Your task to perform on an android device: change notifications settings Image 0: 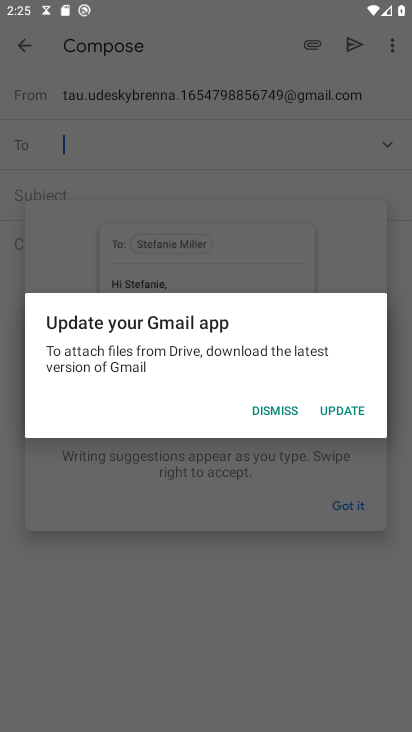
Step 0: press home button
Your task to perform on an android device: change notifications settings Image 1: 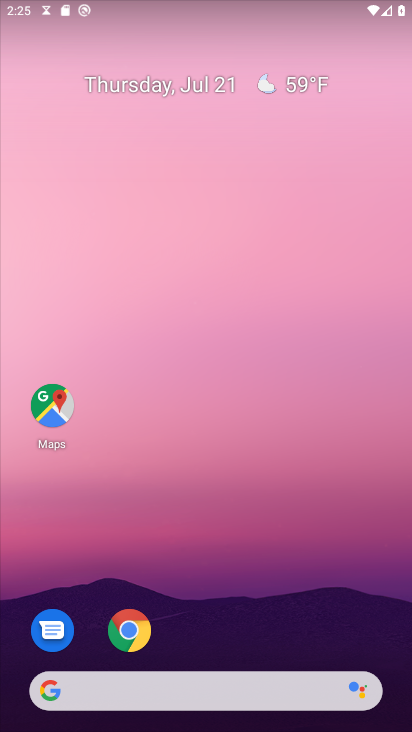
Step 1: drag from (193, 444) to (190, 201)
Your task to perform on an android device: change notifications settings Image 2: 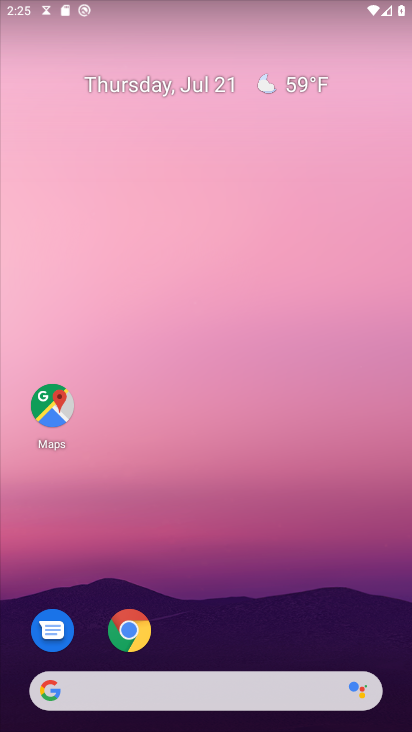
Step 2: drag from (197, 558) to (227, 101)
Your task to perform on an android device: change notifications settings Image 3: 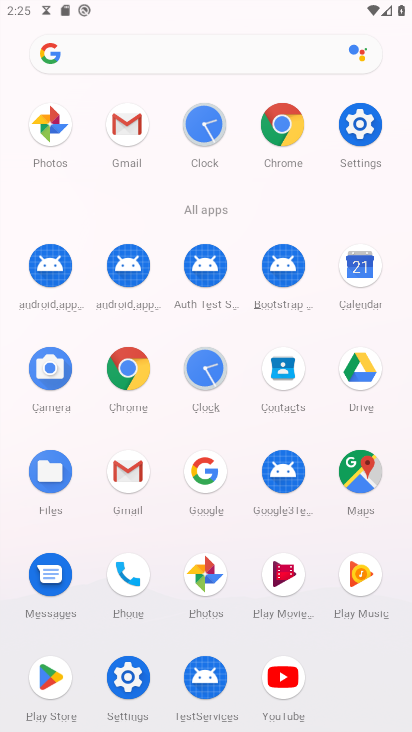
Step 3: click (360, 124)
Your task to perform on an android device: change notifications settings Image 4: 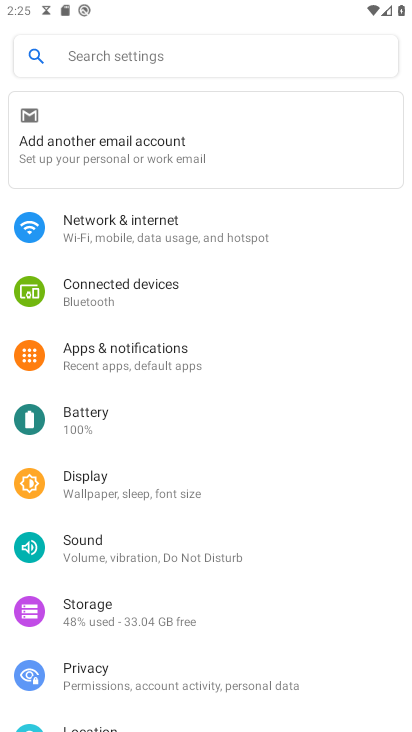
Step 4: click (118, 367)
Your task to perform on an android device: change notifications settings Image 5: 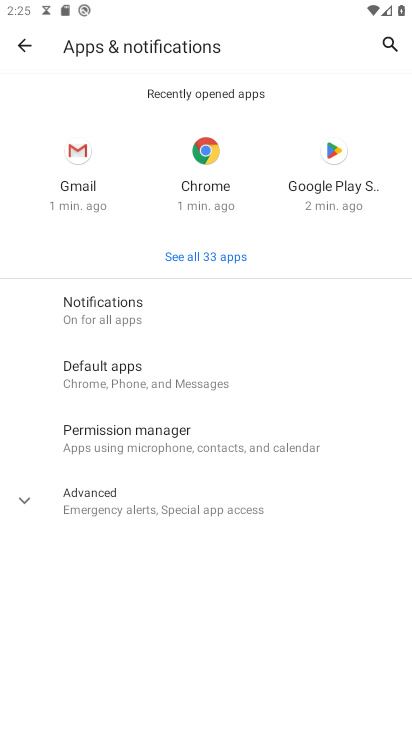
Step 5: click (114, 301)
Your task to perform on an android device: change notifications settings Image 6: 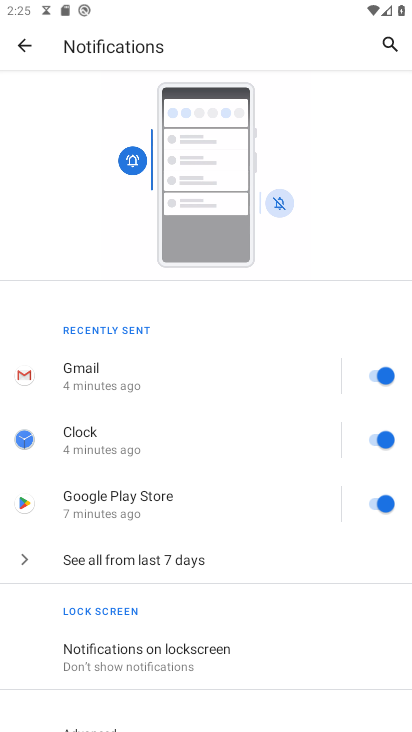
Step 6: click (157, 662)
Your task to perform on an android device: change notifications settings Image 7: 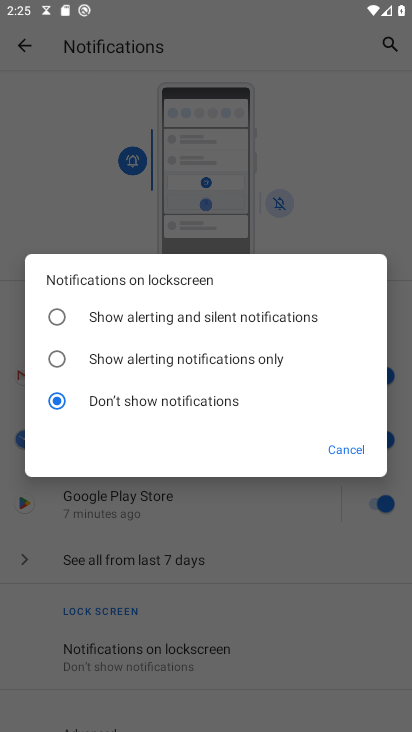
Step 7: click (60, 310)
Your task to perform on an android device: change notifications settings Image 8: 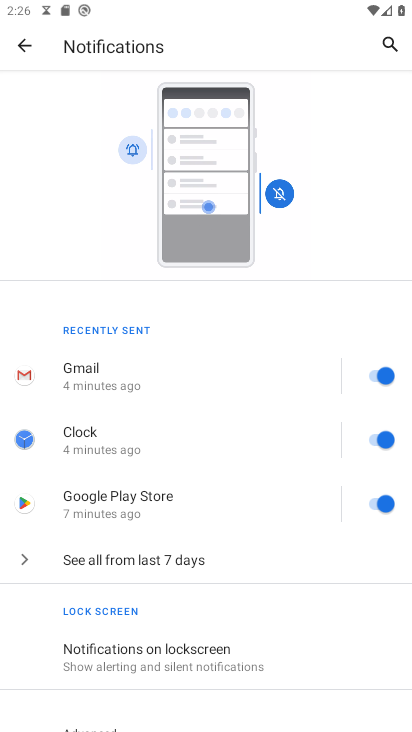
Step 8: task complete